Your task to perform on an android device: Search for the best 4k TVs Image 0: 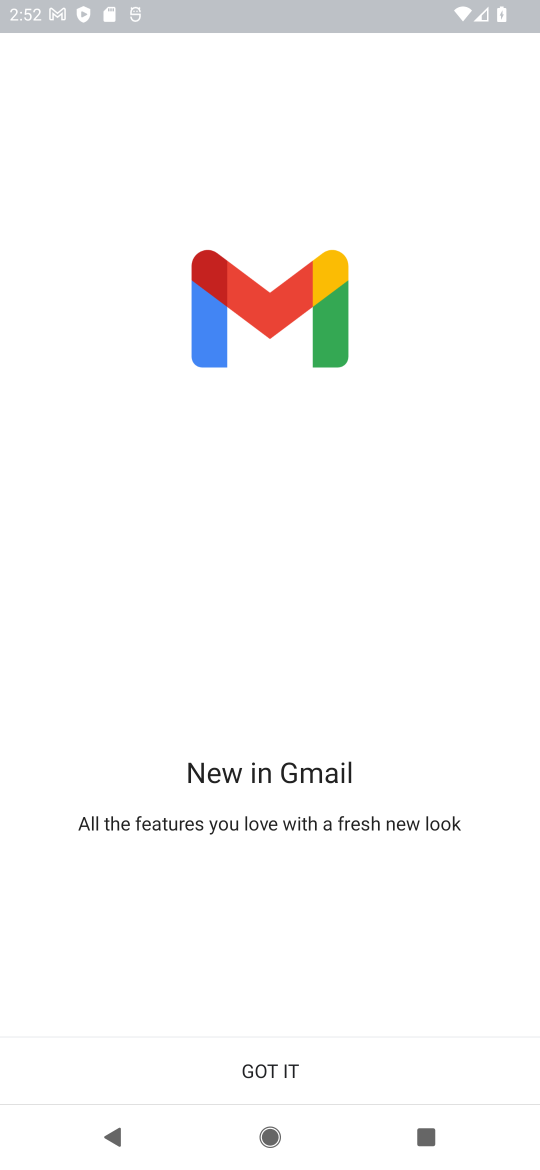
Step 0: press home button
Your task to perform on an android device: Search for the best 4k TVs Image 1: 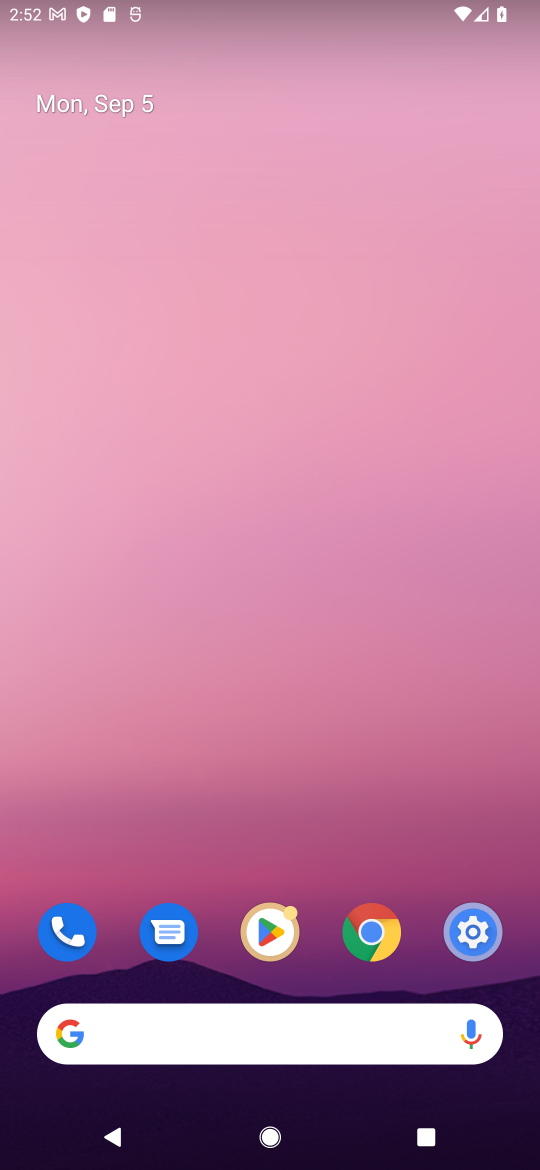
Step 1: click (226, 1052)
Your task to perform on an android device: Search for the best 4k TVs Image 2: 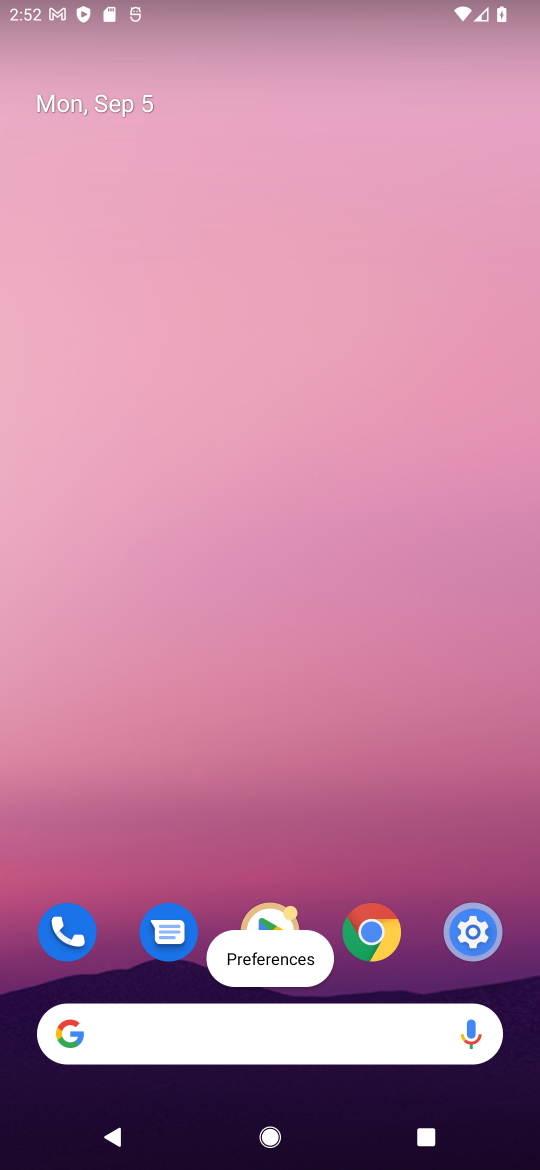
Step 2: click (236, 1034)
Your task to perform on an android device: Search for the best 4k TVs Image 3: 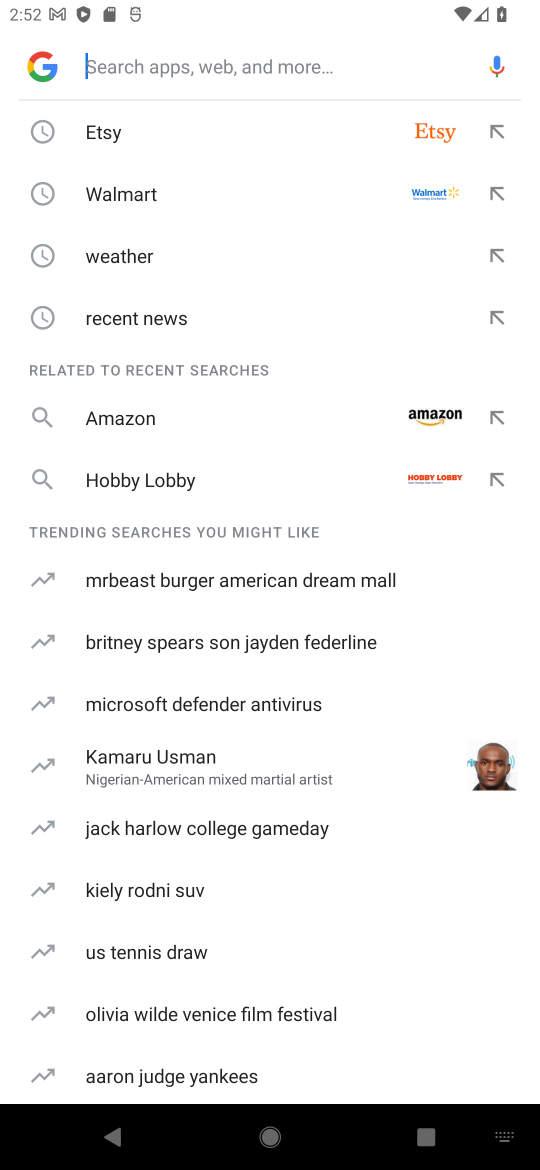
Step 3: type "best 4k TVs"
Your task to perform on an android device: Search for the best 4k TVs Image 4: 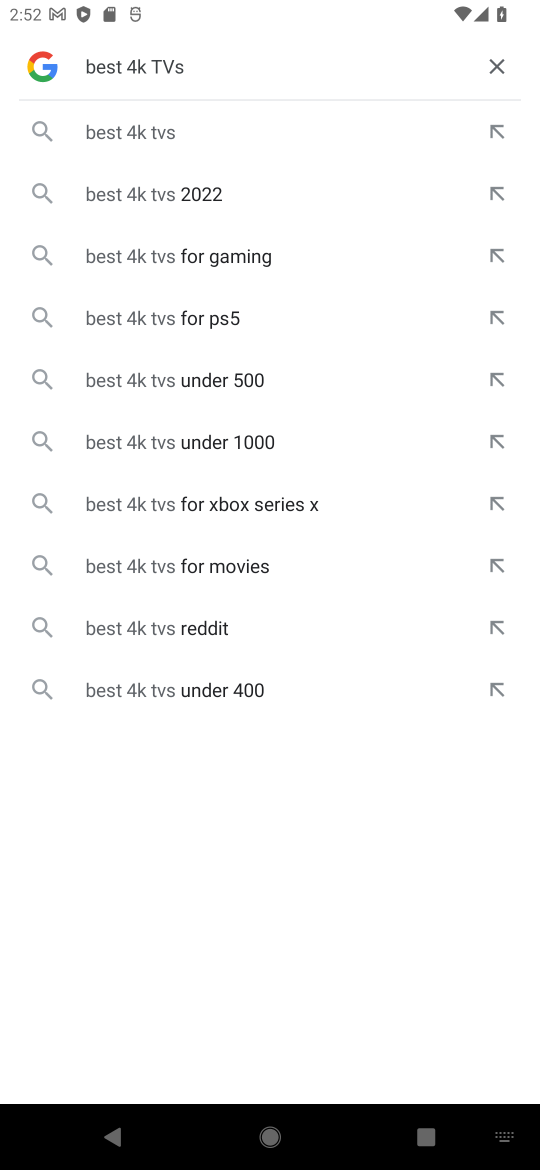
Step 4: click (196, 130)
Your task to perform on an android device: Search for the best 4k TVs Image 5: 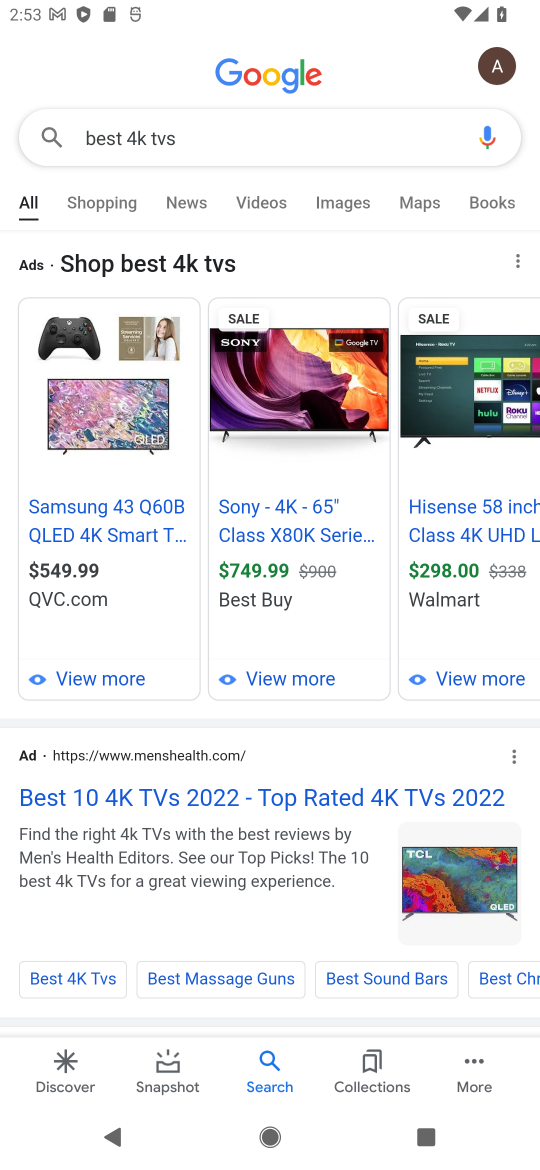
Step 5: drag from (276, 634) to (351, 364)
Your task to perform on an android device: Search for the best 4k TVs Image 6: 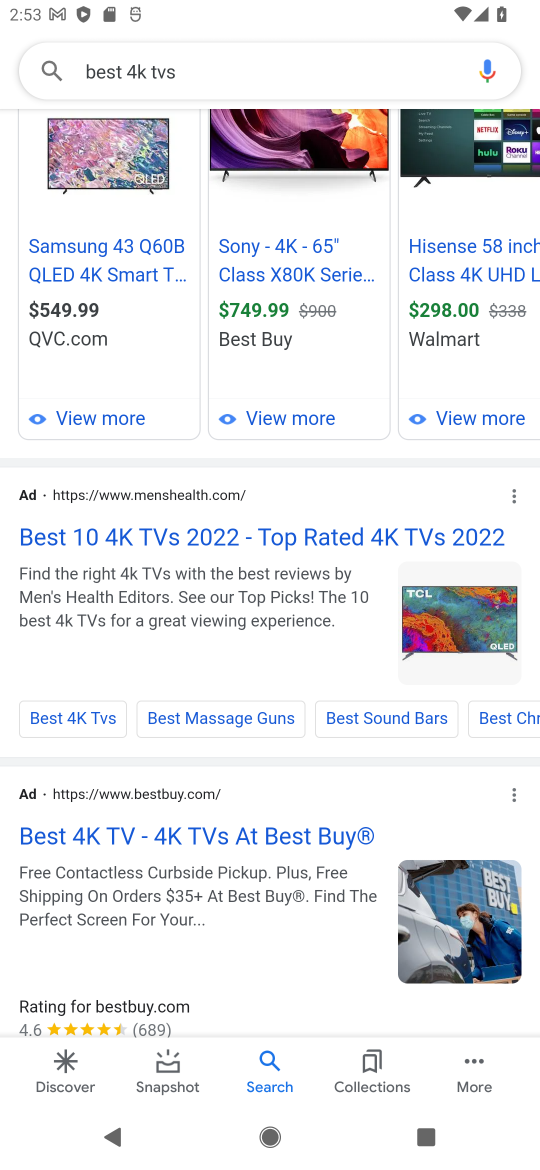
Step 6: drag from (213, 908) to (287, 422)
Your task to perform on an android device: Search for the best 4k TVs Image 7: 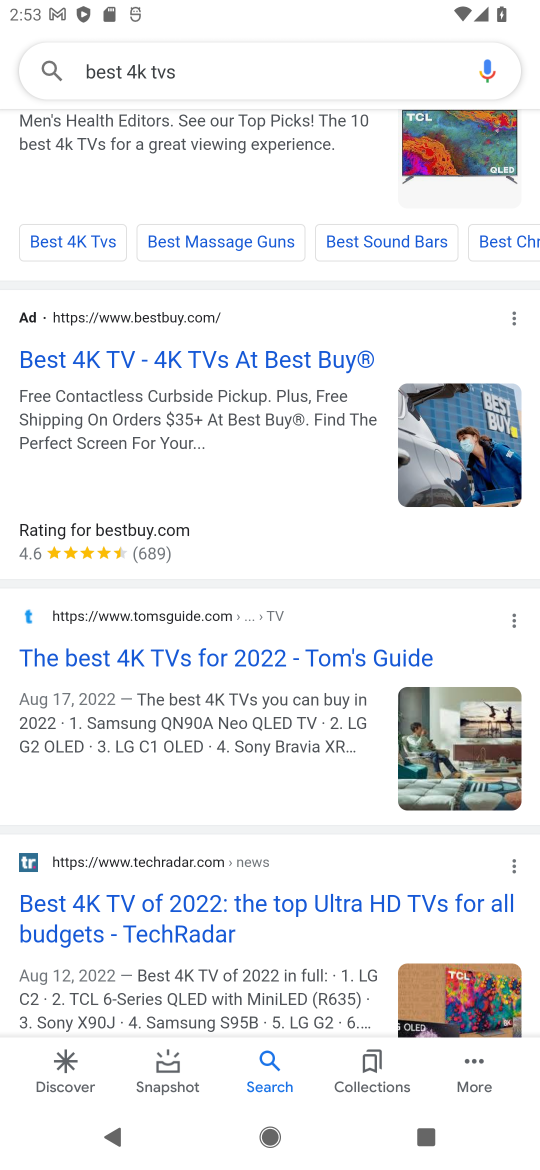
Step 7: click (266, 551)
Your task to perform on an android device: Search for the best 4k TVs Image 8: 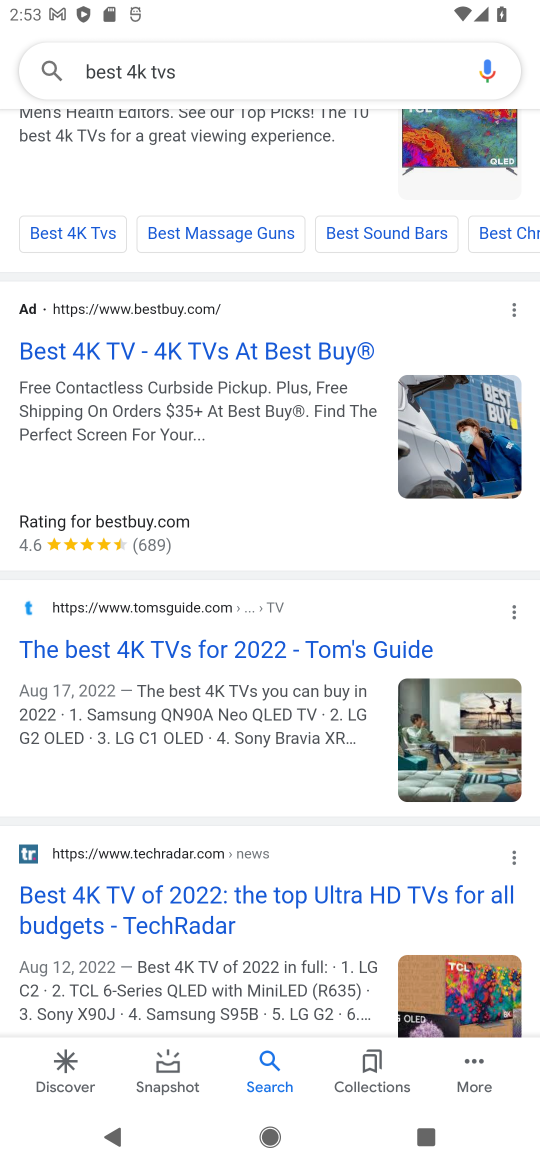
Step 8: task complete